Your task to perform on an android device: Show me popular videos on Youtube Image 0: 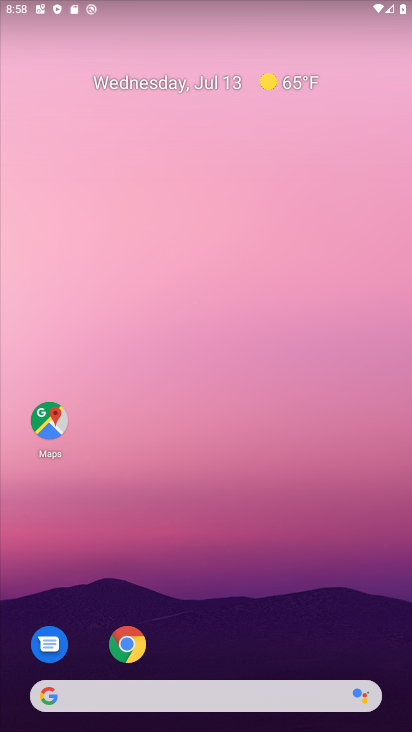
Step 0: drag from (202, 651) to (160, 99)
Your task to perform on an android device: Show me popular videos on Youtube Image 1: 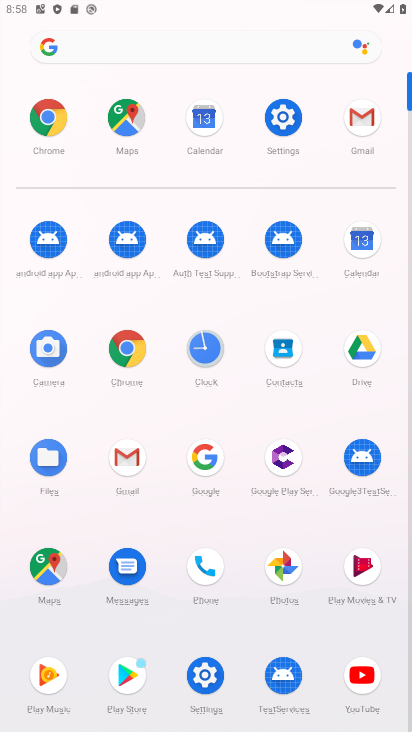
Step 1: click (366, 684)
Your task to perform on an android device: Show me popular videos on Youtube Image 2: 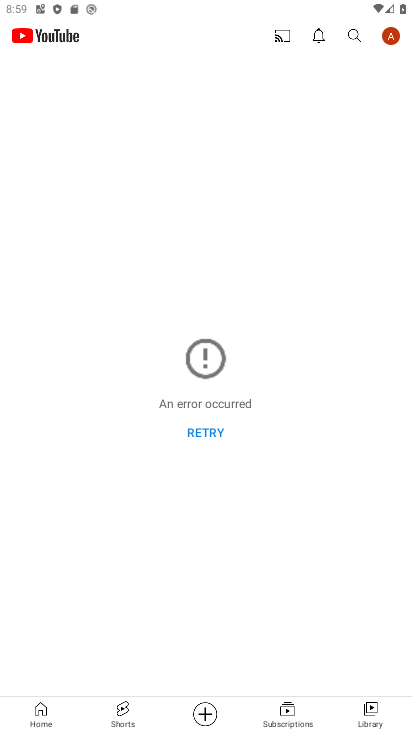
Step 2: click (355, 38)
Your task to perform on an android device: Show me popular videos on Youtube Image 3: 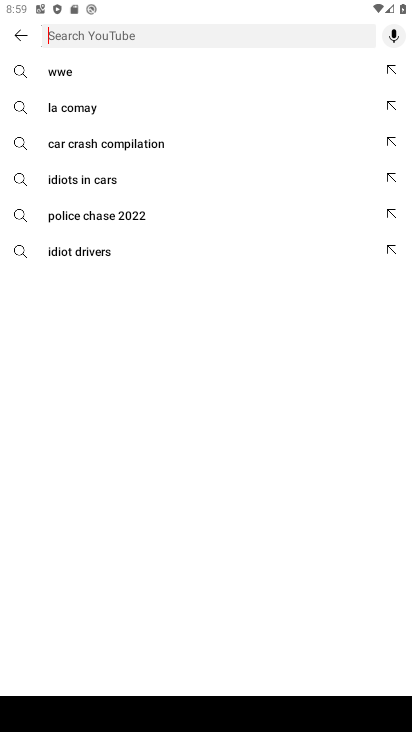
Step 3: type "popular videos"
Your task to perform on an android device: Show me popular videos on Youtube Image 4: 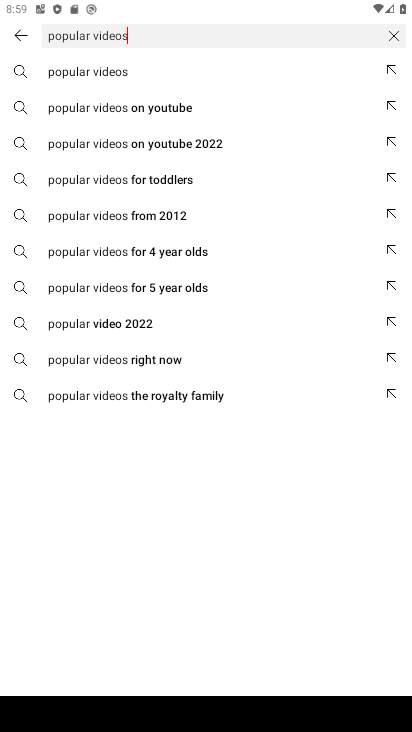
Step 4: click (79, 64)
Your task to perform on an android device: Show me popular videos on Youtube Image 5: 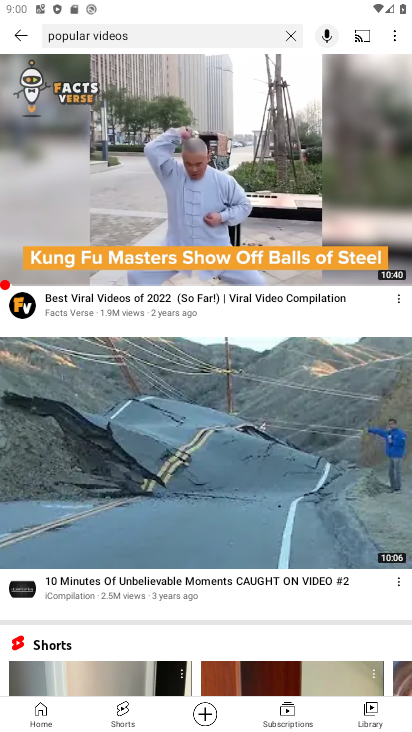
Step 5: task complete